Your task to perform on an android device: Open calendar and show me the third week of next month Image 0: 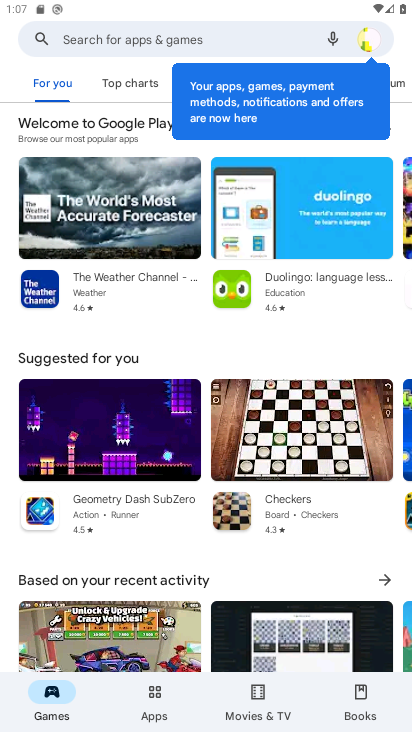
Step 0: press home button
Your task to perform on an android device: Open calendar and show me the third week of next month Image 1: 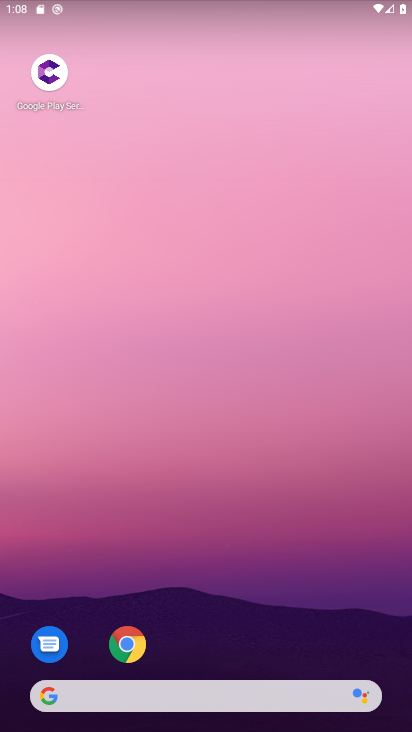
Step 1: drag from (291, 557) to (361, 132)
Your task to perform on an android device: Open calendar and show me the third week of next month Image 2: 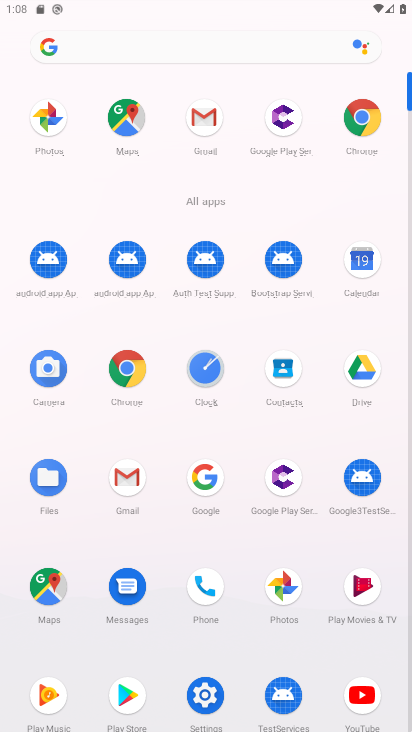
Step 2: click (364, 259)
Your task to perform on an android device: Open calendar and show me the third week of next month Image 3: 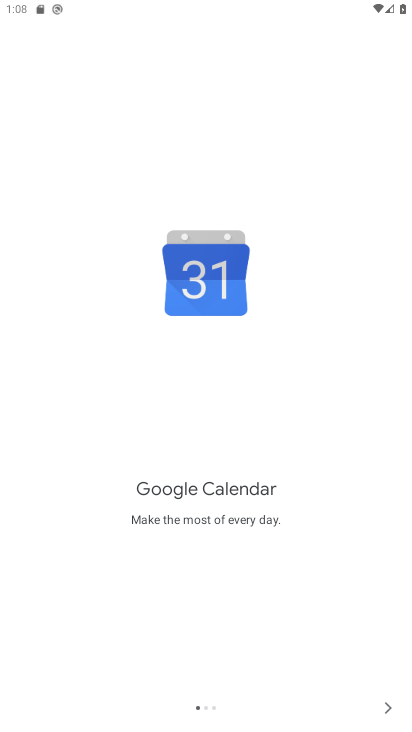
Step 3: click (394, 704)
Your task to perform on an android device: Open calendar and show me the third week of next month Image 4: 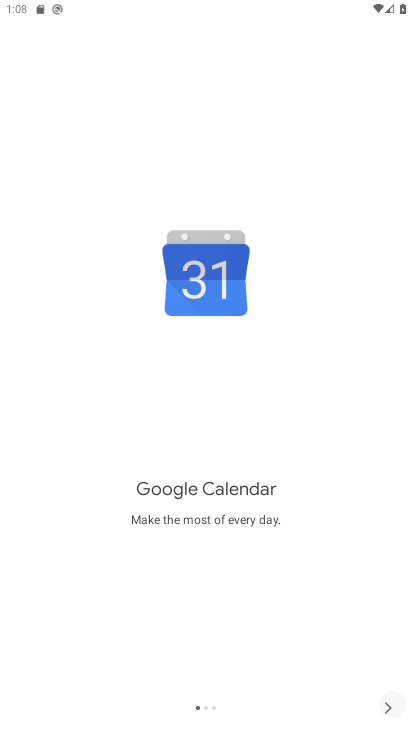
Step 4: click (386, 701)
Your task to perform on an android device: Open calendar and show me the third week of next month Image 5: 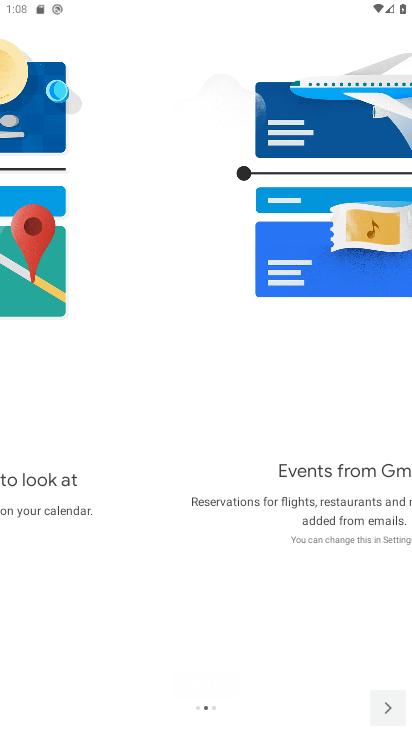
Step 5: click (386, 701)
Your task to perform on an android device: Open calendar and show me the third week of next month Image 6: 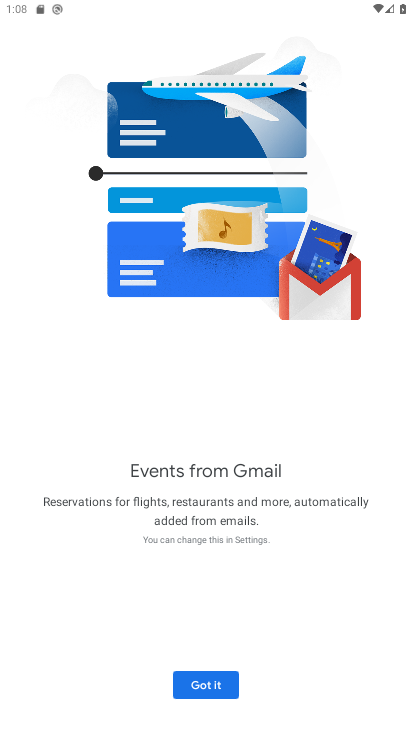
Step 6: click (187, 685)
Your task to perform on an android device: Open calendar and show me the third week of next month Image 7: 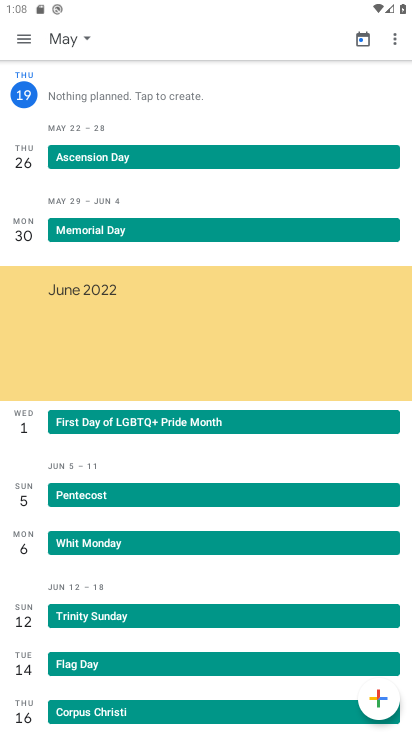
Step 7: click (75, 44)
Your task to perform on an android device: Open calendar and show me the third week of next month Image 8: 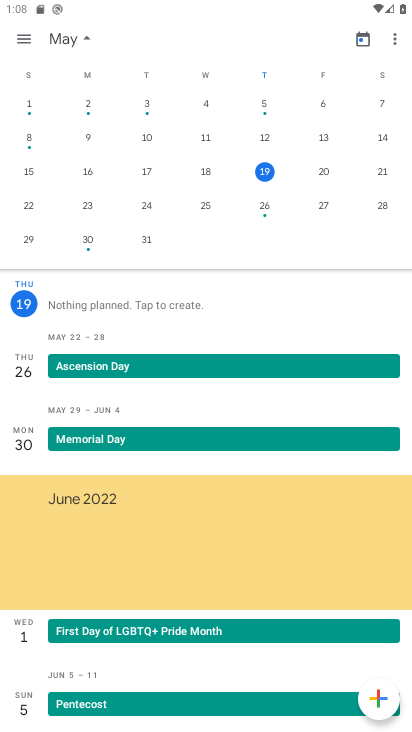
Step 8: drag from (324, 222) to (33, 196)
Your task to perform on an android device: Open calendar and show me the third week of next month Image 9: 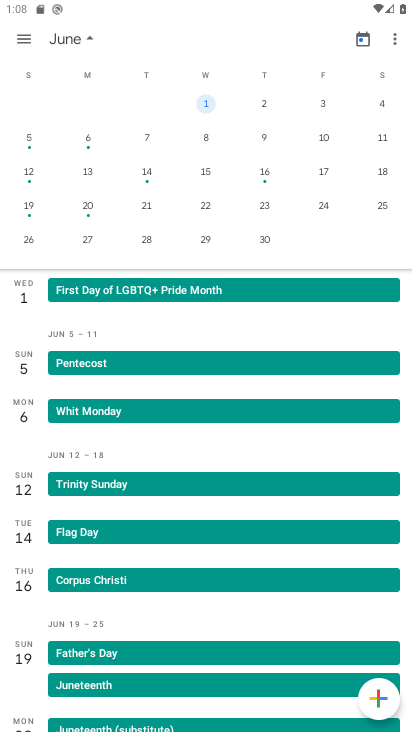
Step 9: click (35, 209)
Your task to perform on an android device: Open calendar and show me the third week of next month Image 10: 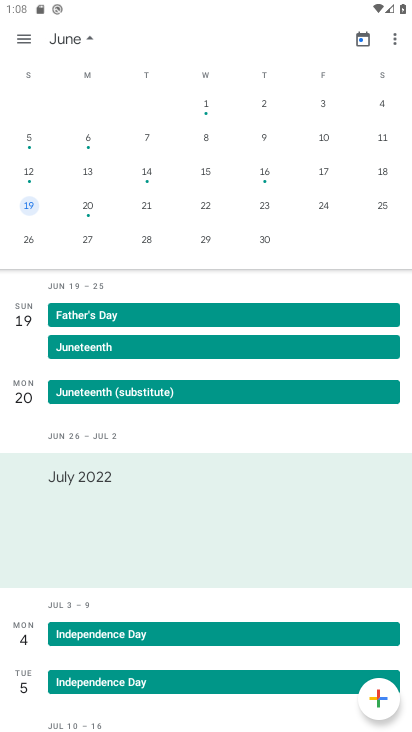
Step 10: click (22, 38)
Your task to perform on an android device: Open calendar and show me the third week of next month Image 11: 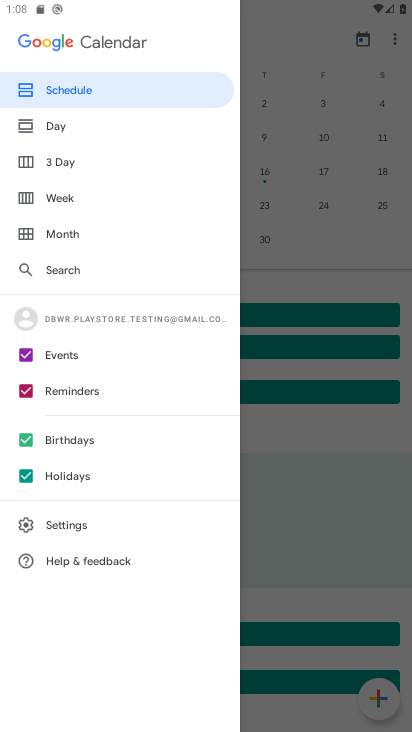
Step 11: click (63, 194)
Your task to perform on an android device: Open calendar and show me the third week of next month Image 12: 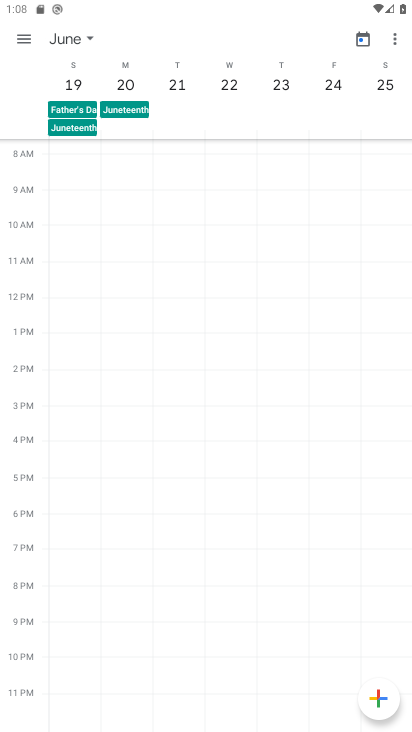
Step 12: task complete